Your task to perform on an android device: turn pop-ups off in chrome Image 0: 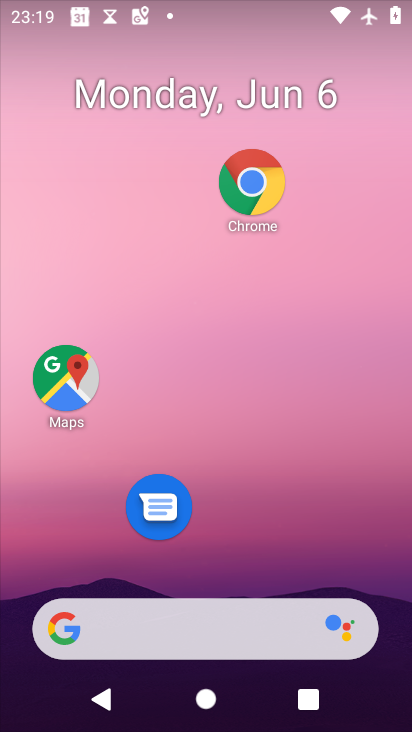
Step 0: click (272, 179)
Your task to perform on an android device: turn pop-ups off in chrome Image 1: 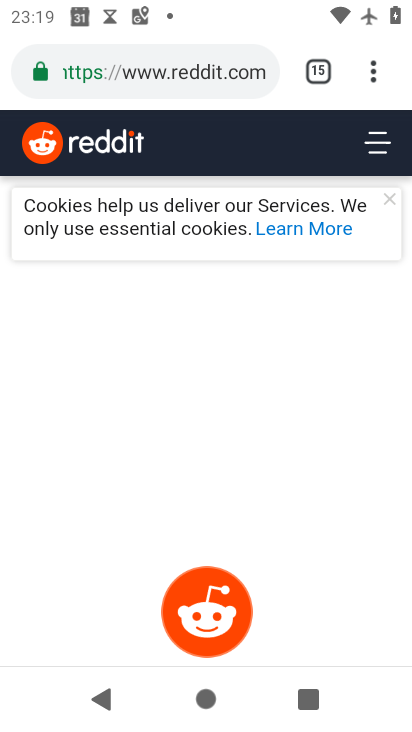
Step 1: click (379, 72)
Your task to perform on an android device: turn pop-ups off in chrome Image 2: 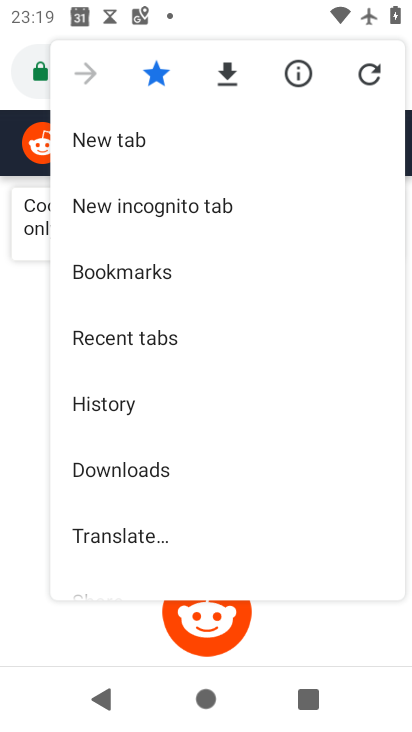
Step 2: drag from (231, 496) to (201, 219)
Your task to perform on an android device: turn pop-ups off in chrome Image 3: 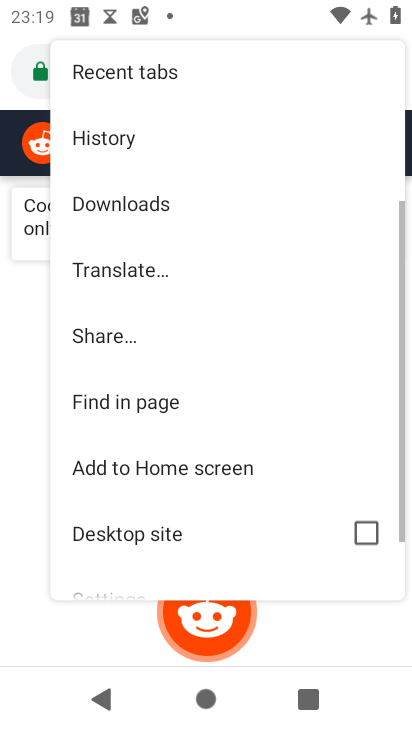
Step 3: drag from (129, 547) to (149, 281)
Your task to perform on an android device: turn pop-ups off in chrome Image 4: 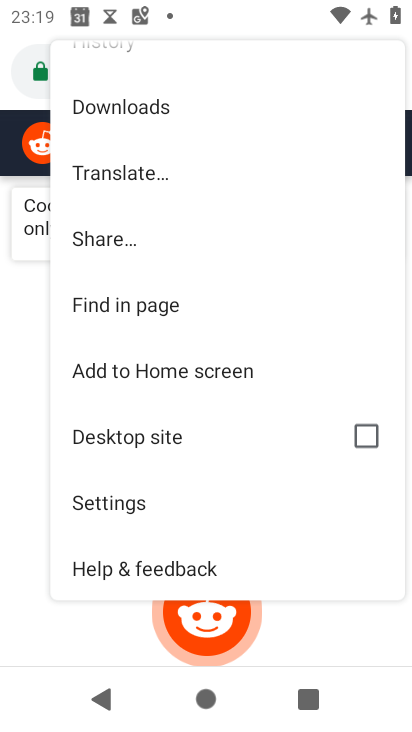
Step 4: click (131, 503)
Your task to perform on an android device: turn pop-ups off in chrome Image 5: 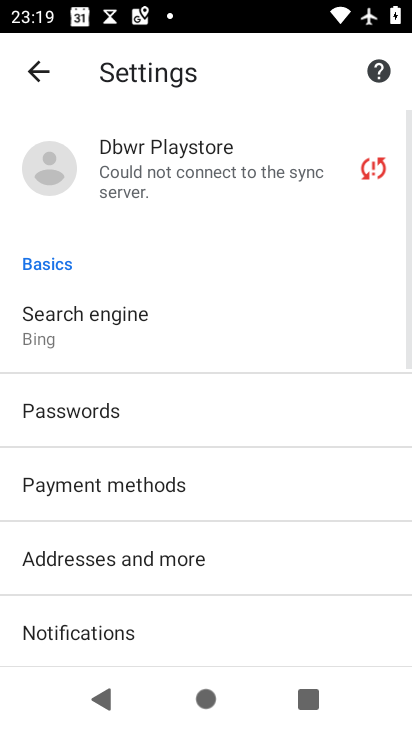
Step 5: drag from (203, 553) to (214, 278)
Your task to perform on an android device: turn pop-ups off in chrome Image 6: 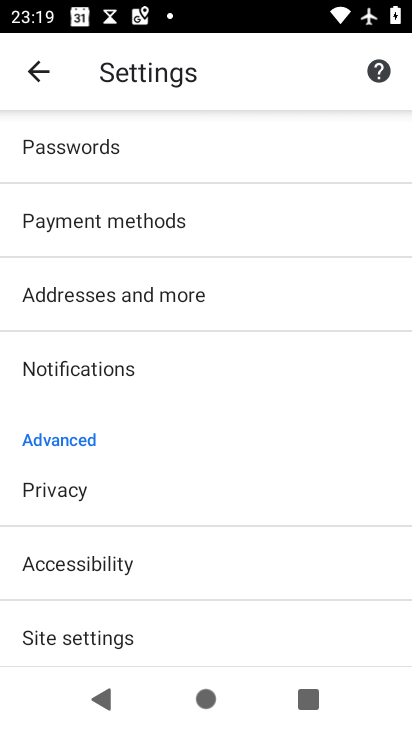
Step 6: drag from (177, 629) to (192, 371)
Your task to perform on an android device: turn pop-ups off in chrome Image 7: 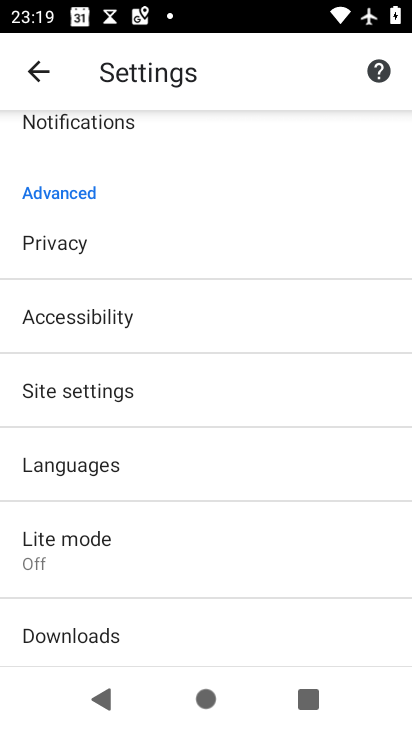
Step 7: click (107, 384)
Your task to perform on an android device: turn pop-ups off in chrome Image 8: 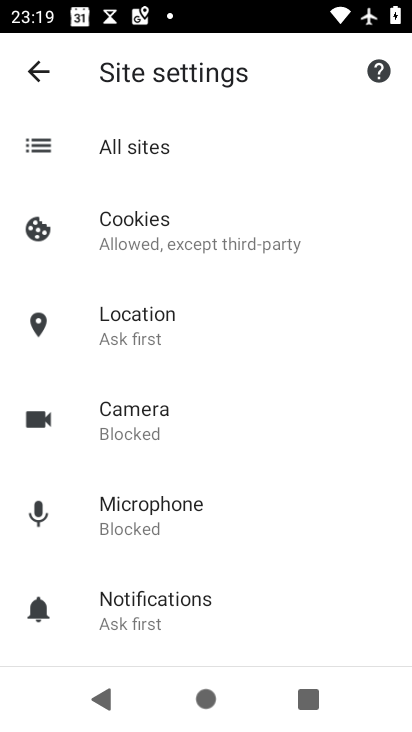
Step 8: drag from (167, 586) to (212, 316)
Your task to perform on an android device: turn pop-ups off in chrome Image 9: 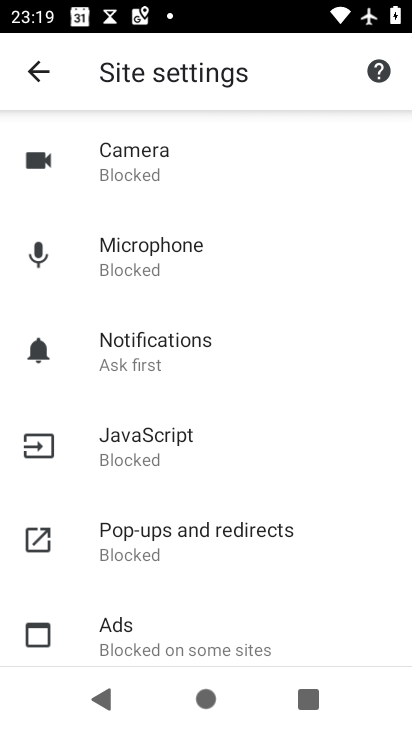
Step 9: drag from (169, 591) to (199, 461)
Your task to perform on an android device: turn pop-ups off in chrome Image 10: 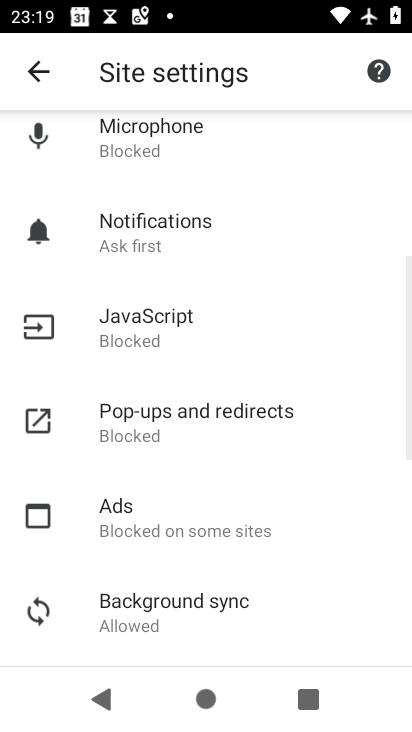
Step 10: click (140, 476)
Your task to perform on an android device: turn pop-ups off in chrome Image 11: 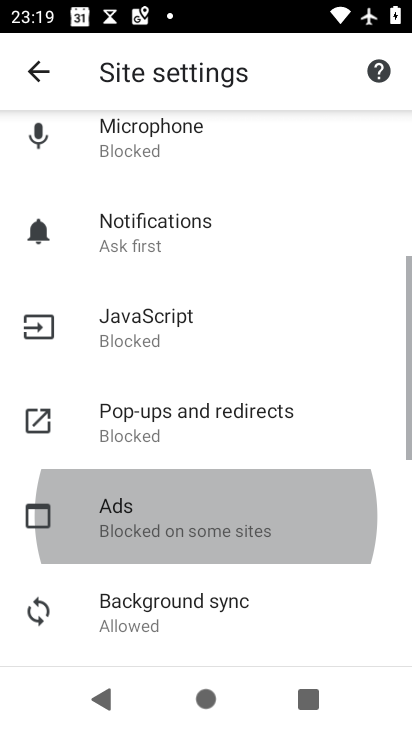
Step 11: click (148, 450)
Your task to perform on an android device: turn pop-ups off in chrome Image 12: 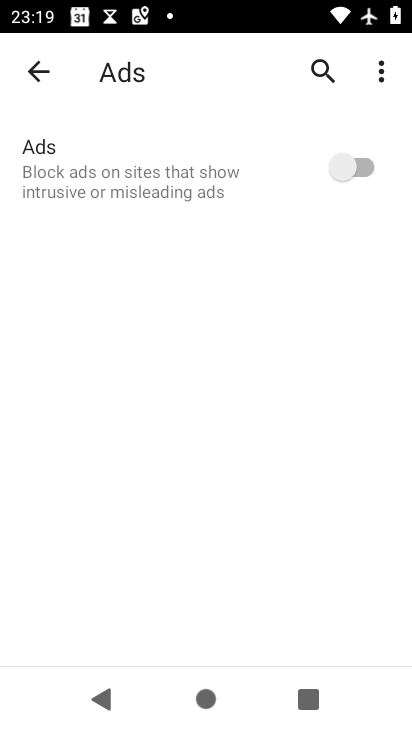
Step 12: click (19, 73)
Your task to perform on an android device: turn pop-ups off in chrome Image 13: 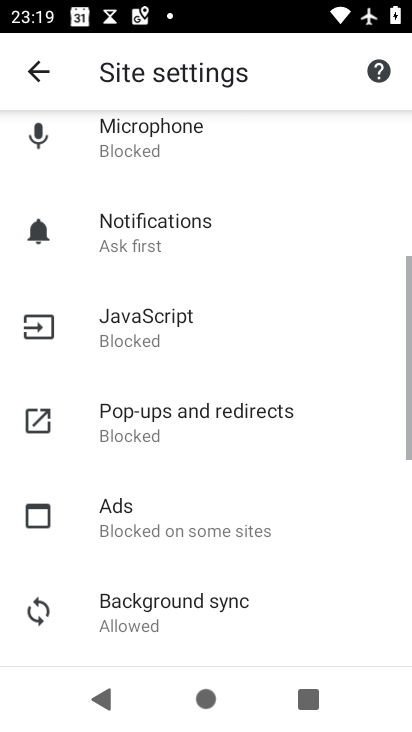
Step 13: click (177, 434)
Your task to perform on an android device: turn pop-ups off in chrome Image 14: 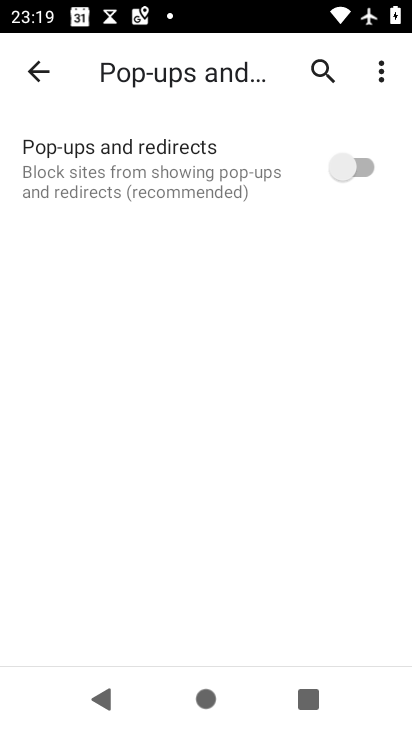
Step 14: task complete